Your task to perform on an android device: turn off data saver in the chrome app Image 0: 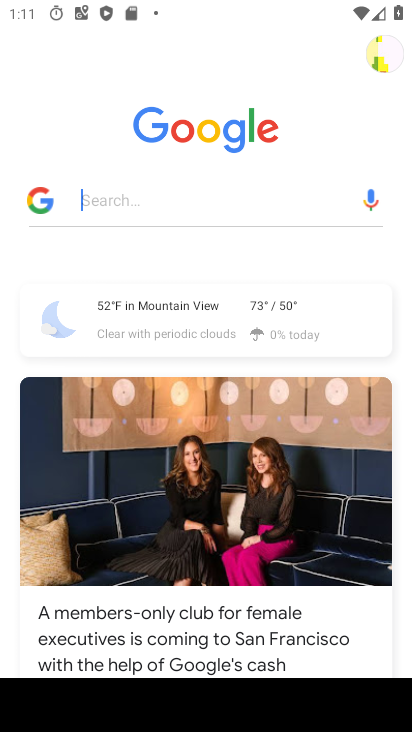
Step 0: press home button
Your task to perform on an android device: turn off data saver in the chrome app Image 1: 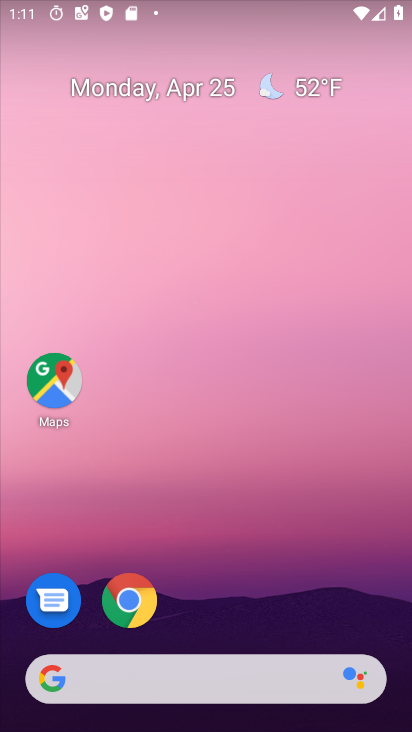
Step 1: drag from (210, 614) to (329, 177)
Your task to perform on an android device: turn off data saver in the chrome app Image 2: 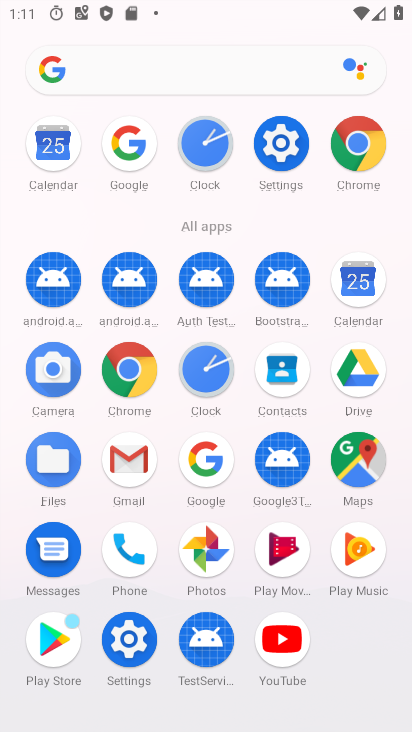
Step 2: click (356, 160)
Your task to perform on an android device: turn off data saver in the chrome app Image 3: 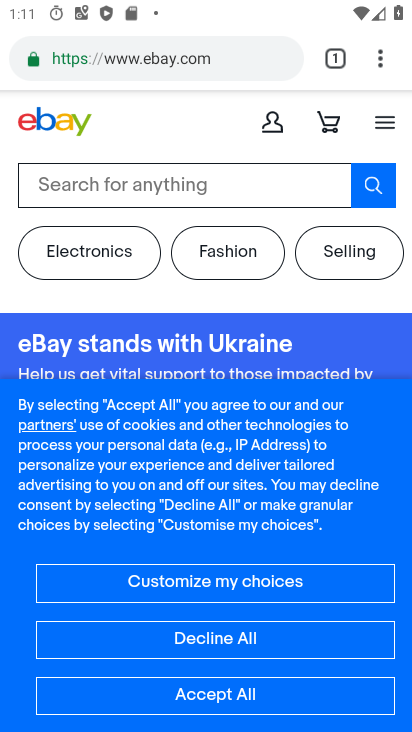
Step 3: drag from (378, 64) to (227, 618)
Your task to perform on an android device: turn off data saver in the chrome app Image 4: 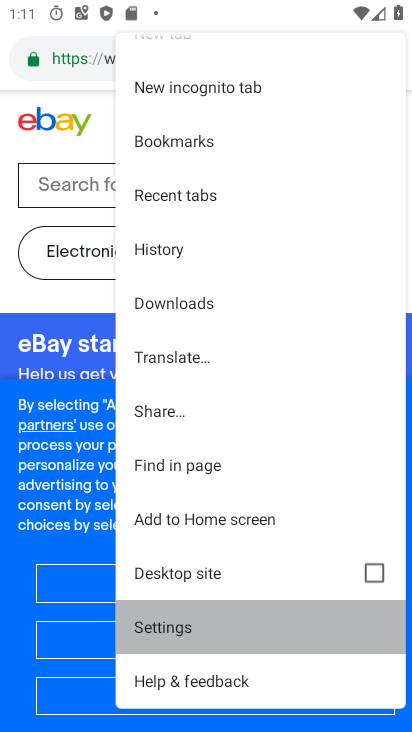
Step 4: click (227, 618)
Your task to perform on an android device: turn off data saver in the chrome app Image 5: 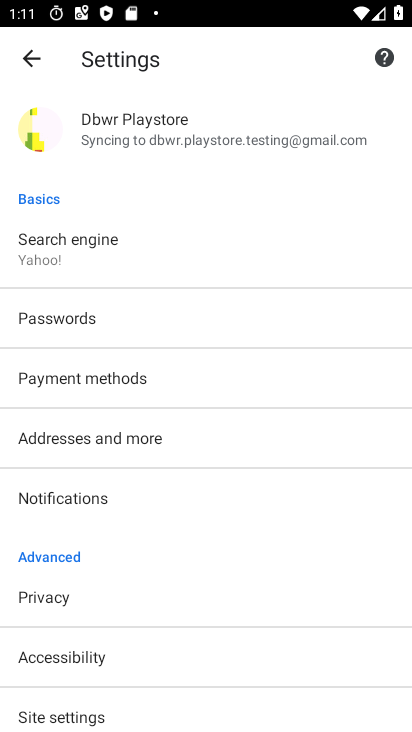
Step 5: drag from (187, 611) to (352, 138)
Your task to perform on an android device: turn off data saver in the chrome app Image 6: 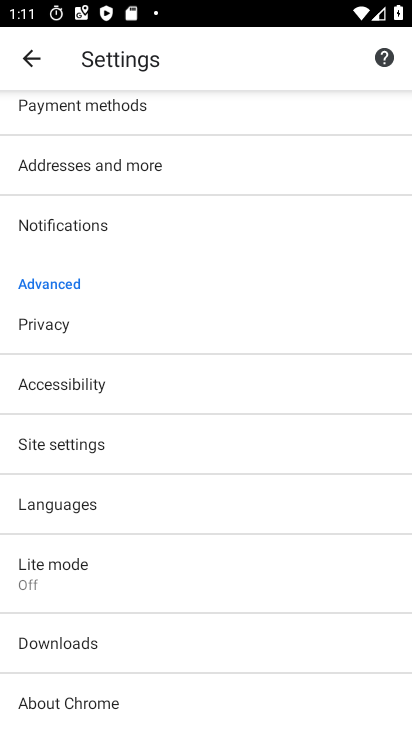
Step 6: click (118, 555)
Your task to perform on an android device: turn off data saver in the chrome app Image 7: 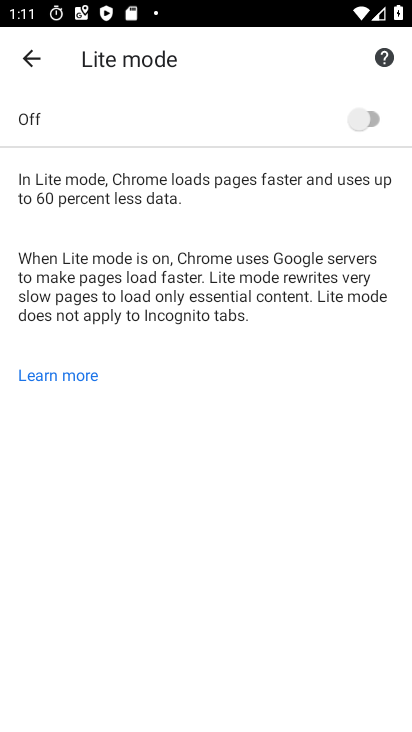
Step 7: task complete